Your task to perform on an android device: Show me popular videos on Youtube Image 0: 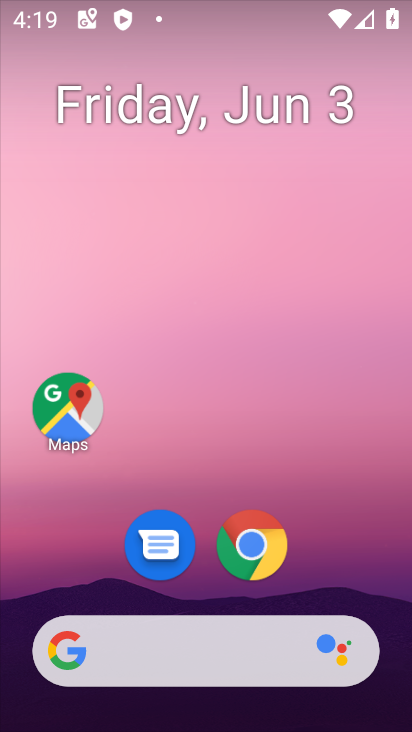
Step 0: drag from (76, 609) to (235, 172)
Your task to perform on an android device: Show me popular videos on Youtube Image 1: 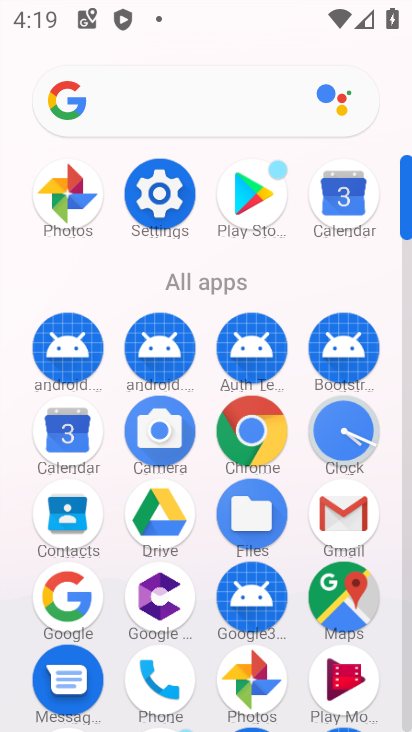
Step 1: drag from (247, 587) to (372, 204)
Your task to perform on an android device: Show me popular videos on Youtube Image 2: 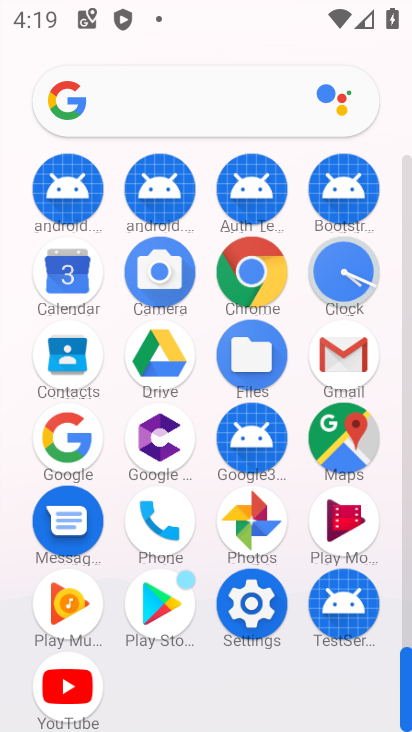
Step 2: click (71, 698)
Your task to perform on an android device: Show me popular videos on Youtube Image 3: 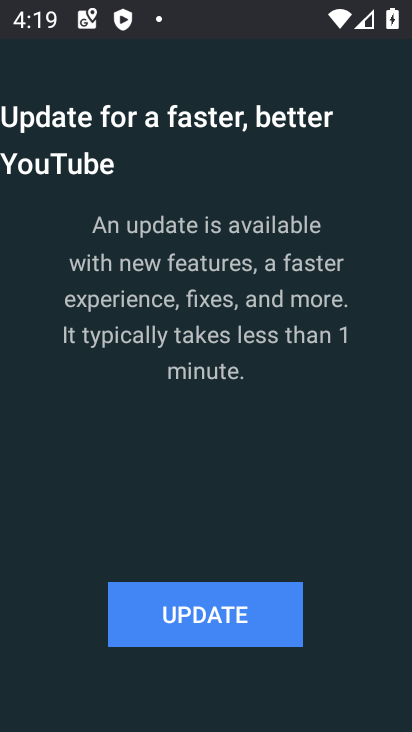
Step 3: click (271, 647)
Your task to perform on an android device: Show me popular videos on Youtube Image 4: 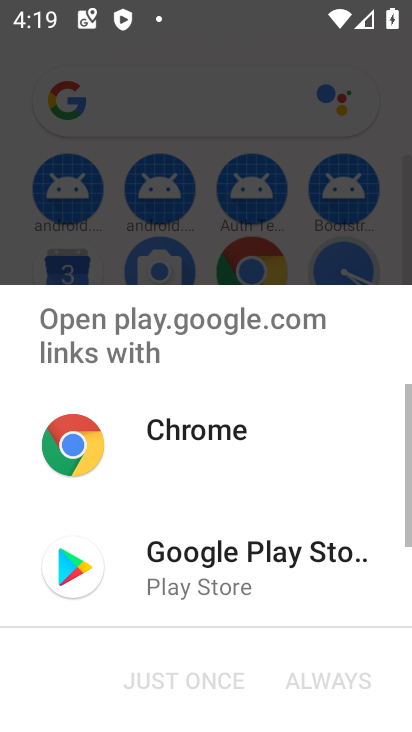
Step 4: click (221, 611)
Your task to perform on an android device: Show me popular videos on Youtube Image 5: 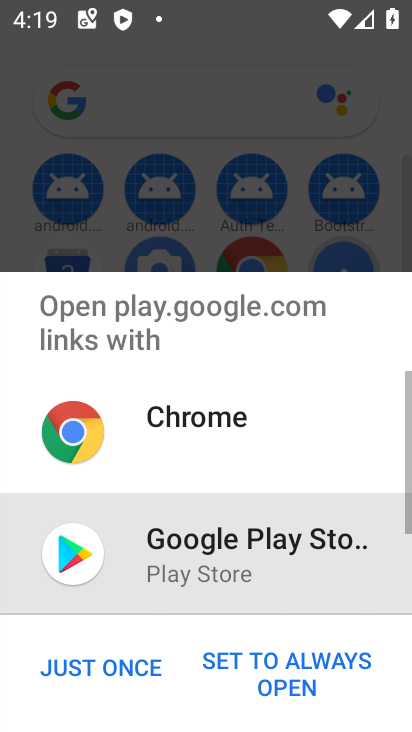
Step 5: click (116, 666)
Your task to perform on an android device: Show me popular videos on Youtube Image 6: 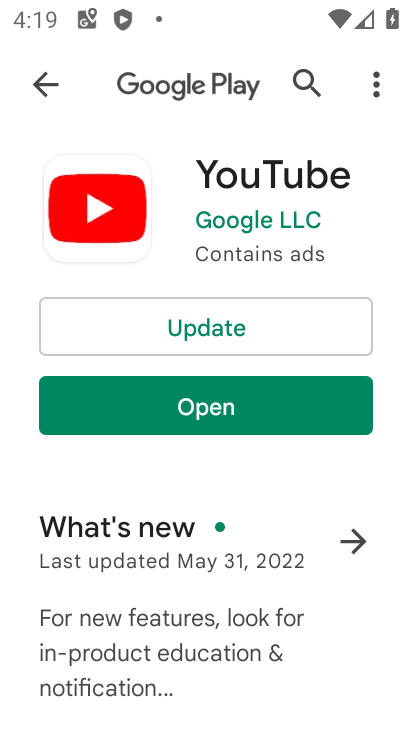
Step 6: click (263, 341)
Your task to perform on an android device: Show me popular videos on Youtube Image 7: 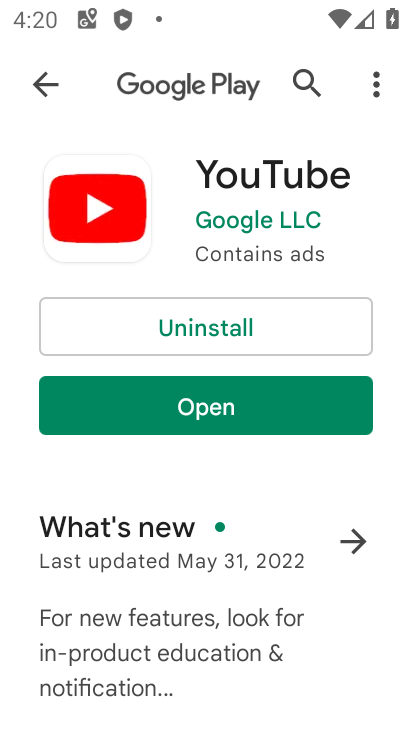
Step 7: click (186, 407)
Your task to perform on an android device: Show me popular videos on Youtube Image 8: 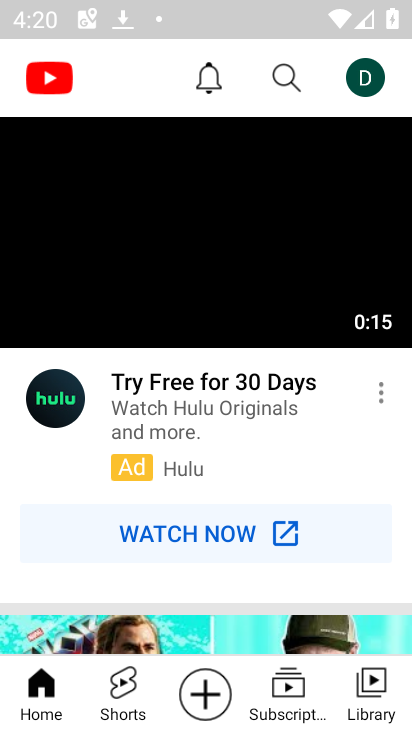
Step 8: drag from (239, 236) to (196, 559)
Your task to perform on an android device: Show me popular videos on Youtube Image 9: 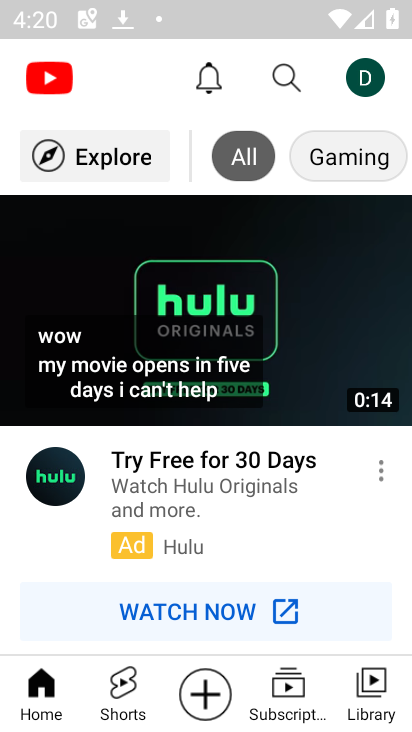
Step 9: click (111, 172)
Your task to perform on an android device: Show me popular videos on Youtube Image 10: 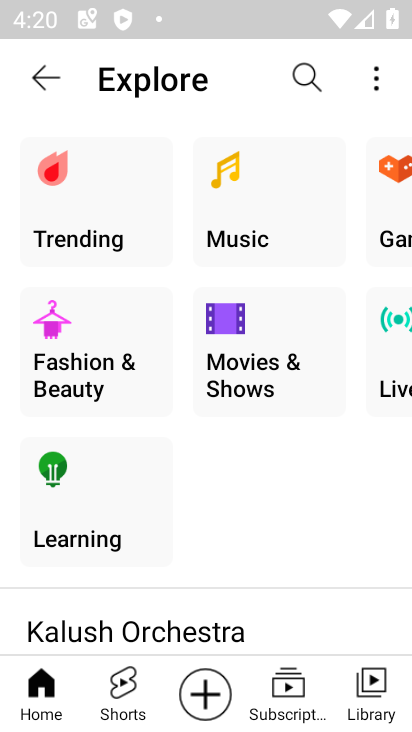
Step 10: click (106, 191)
Your task to perform on an android device: Show me popular videos on Youtube Image 11: 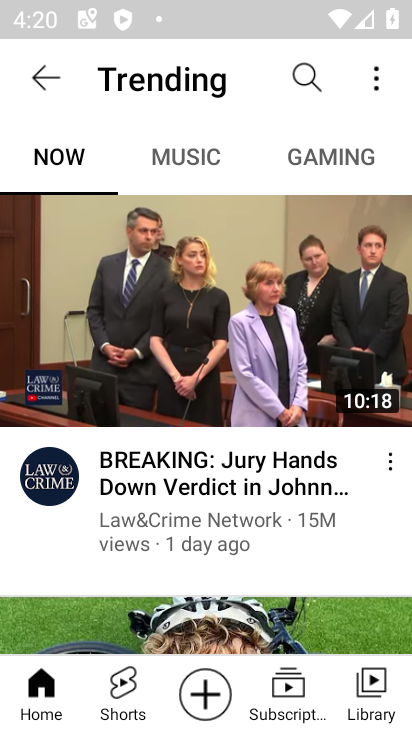
Step 11: task complete